Your task to perform on an android device: Set an alarm for 11am Image 0: 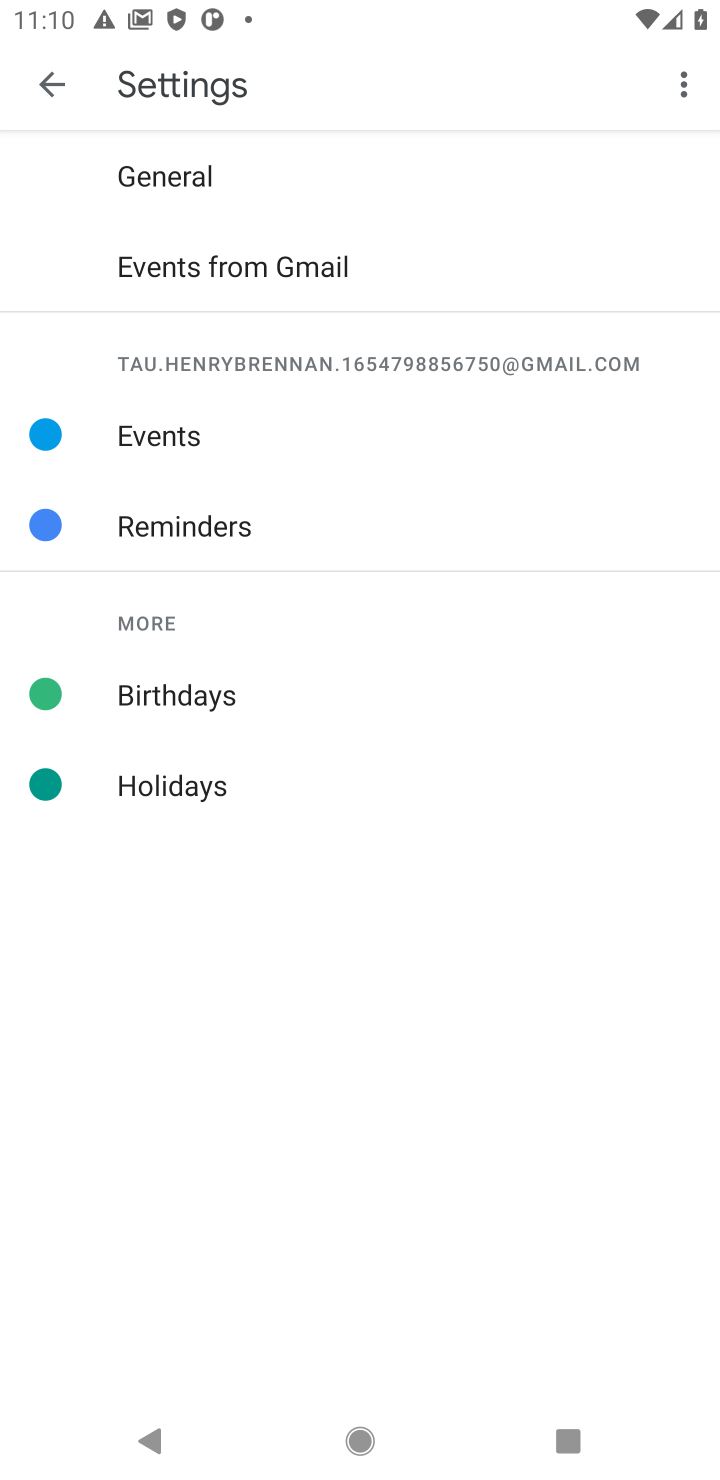
Step 0: press home button
Your task to perform on an android device: Set an alarm for 11am Image 1: 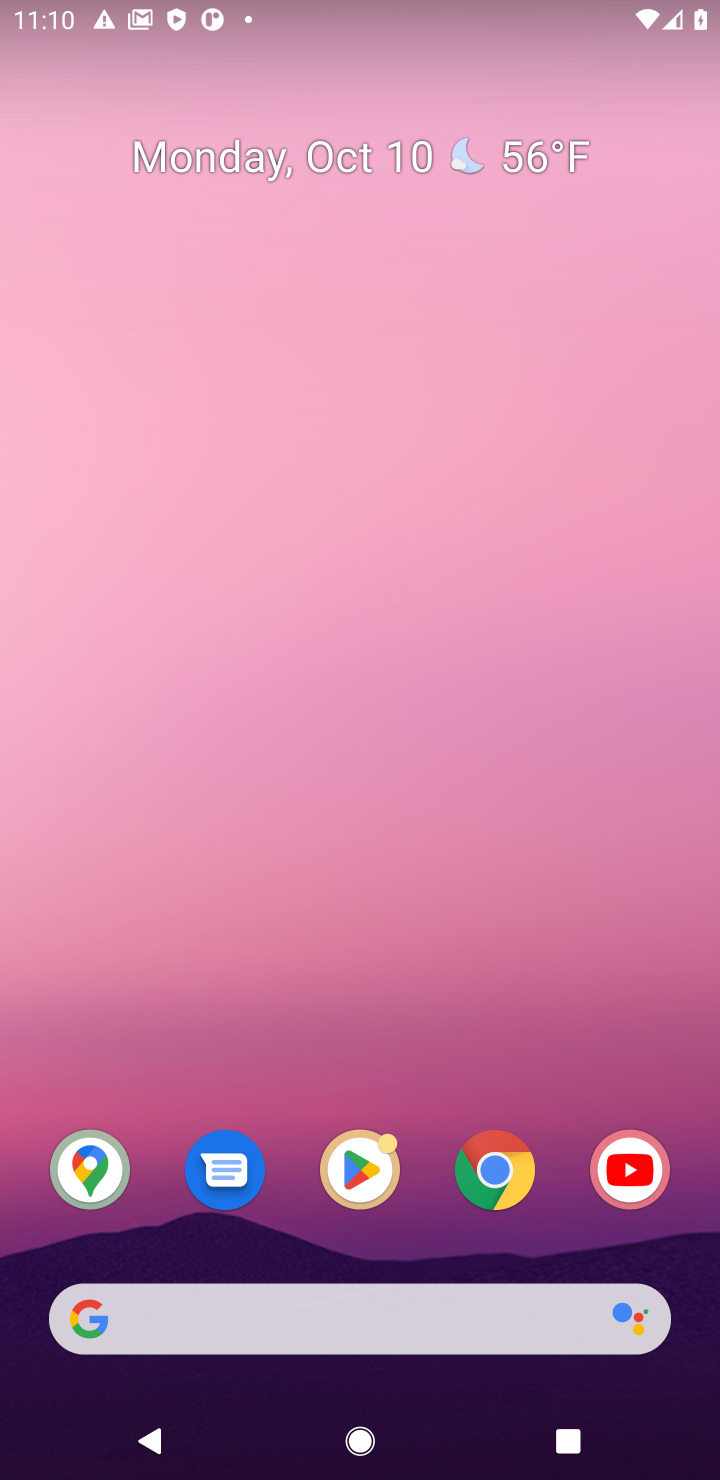
Step 1: drag from (399, 1228) to (407, 404)
Your task to perform on an android device: Set an alarm for 11am Image 2: 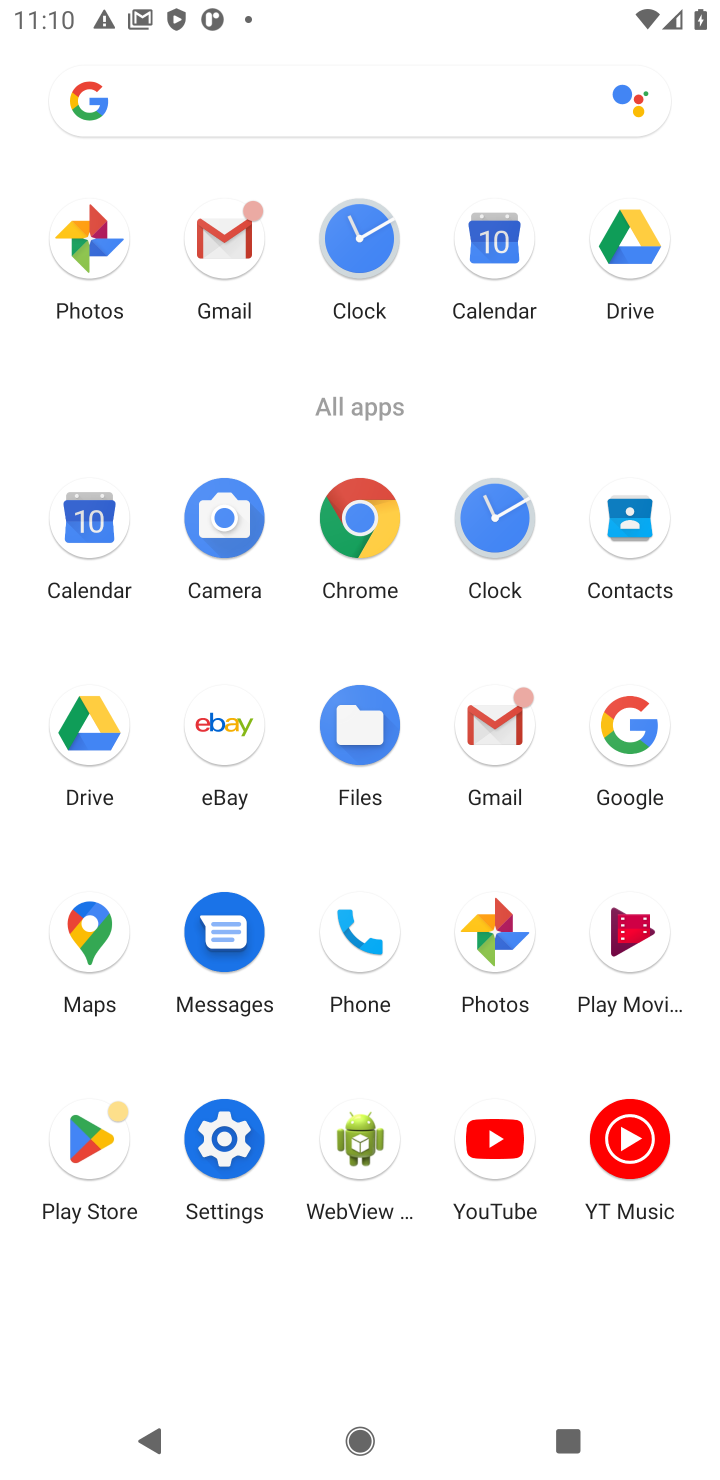
Step 2: click (495, 557)
Your task to perform on an android device: Set an alarm for 11am Image 3: 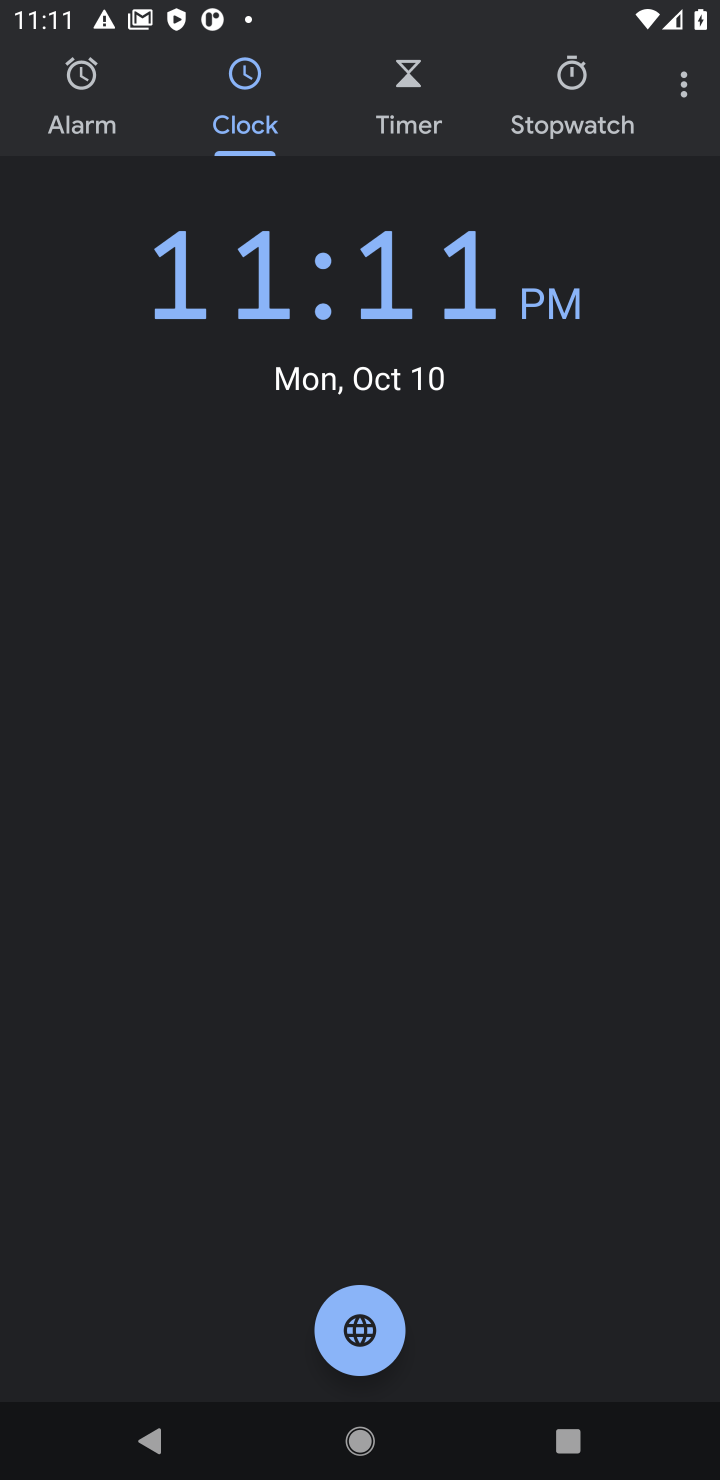
Step 3: click (108, 138)
Your task to perform on an android device: Set an alarm for 11am Image 4: 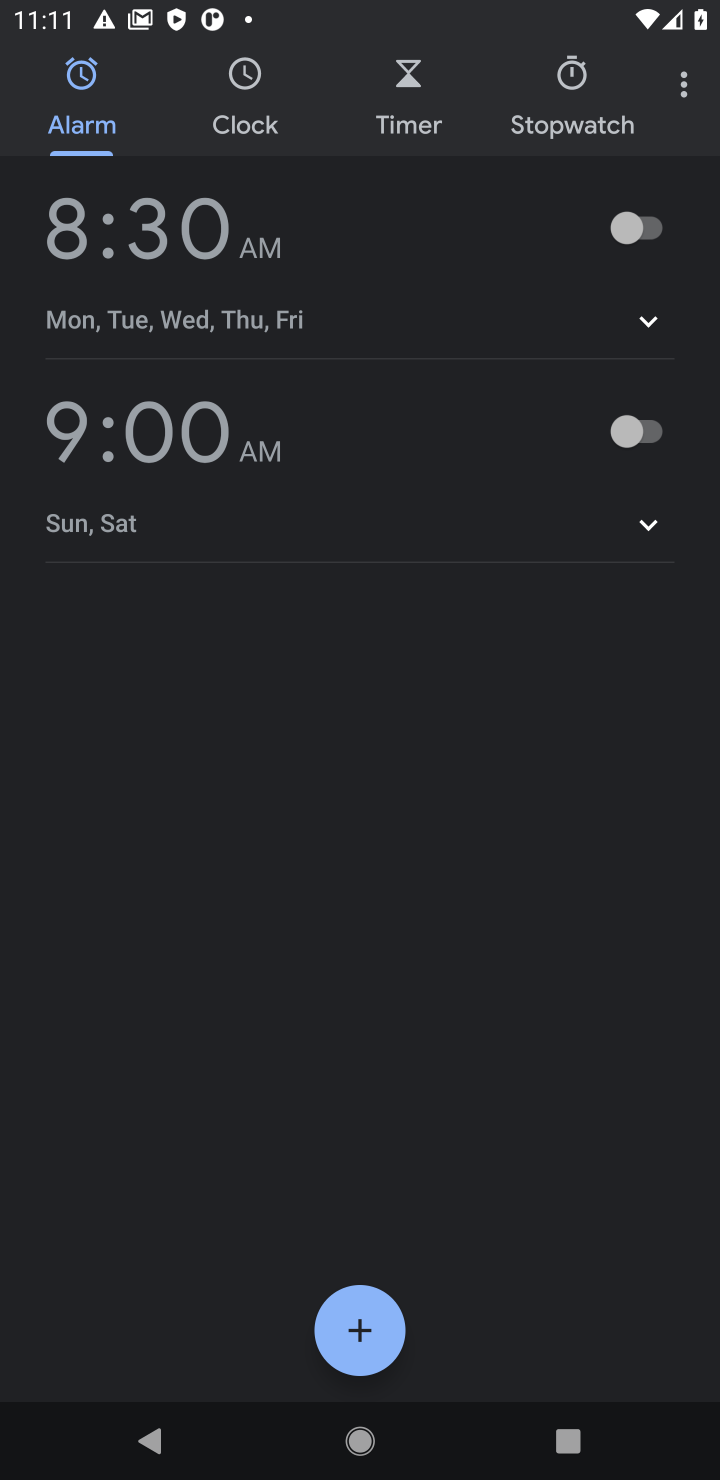
Step 4: click (370, 1338)
Your task to perform on an android device: Set an alarm for 11am Image 5: 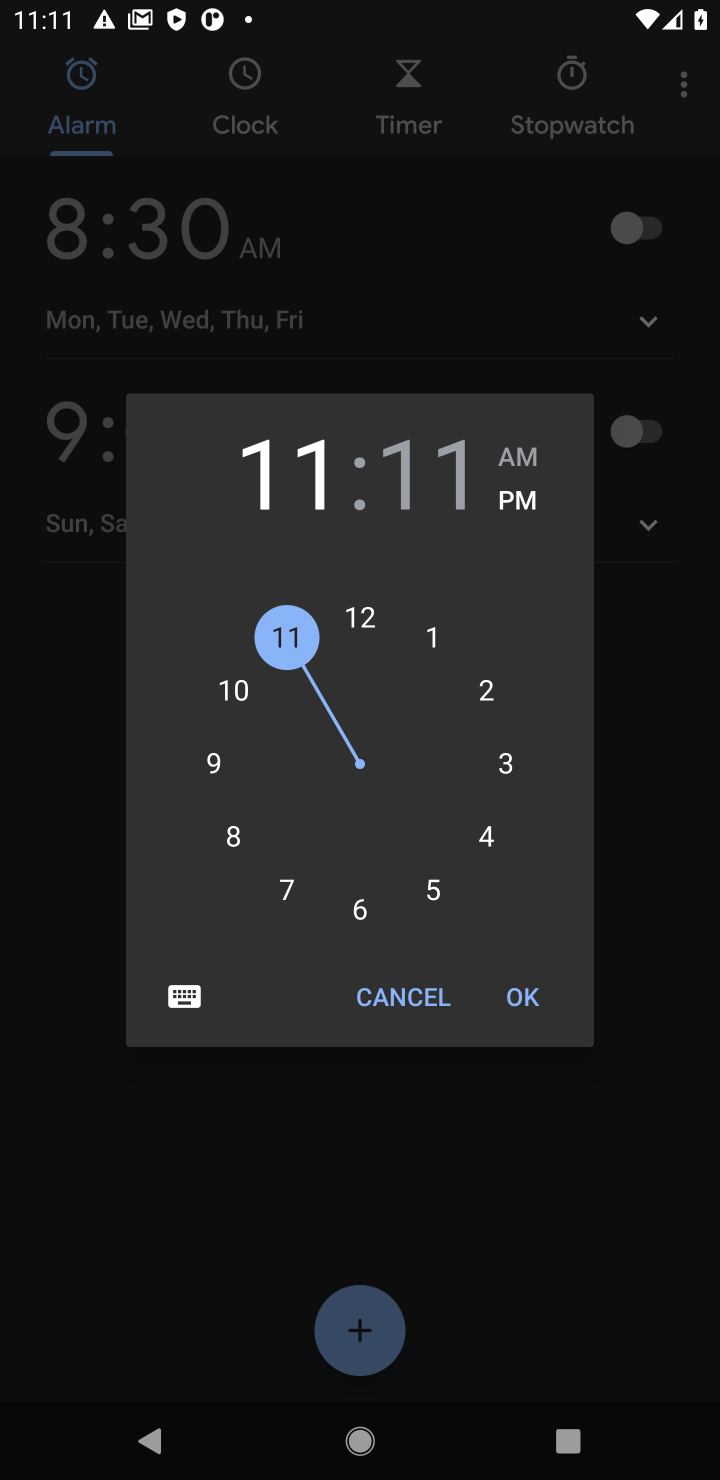
Step 5: click (293, 645)
Your task to perform on an android device: Set an alarm for 11am Image 6: 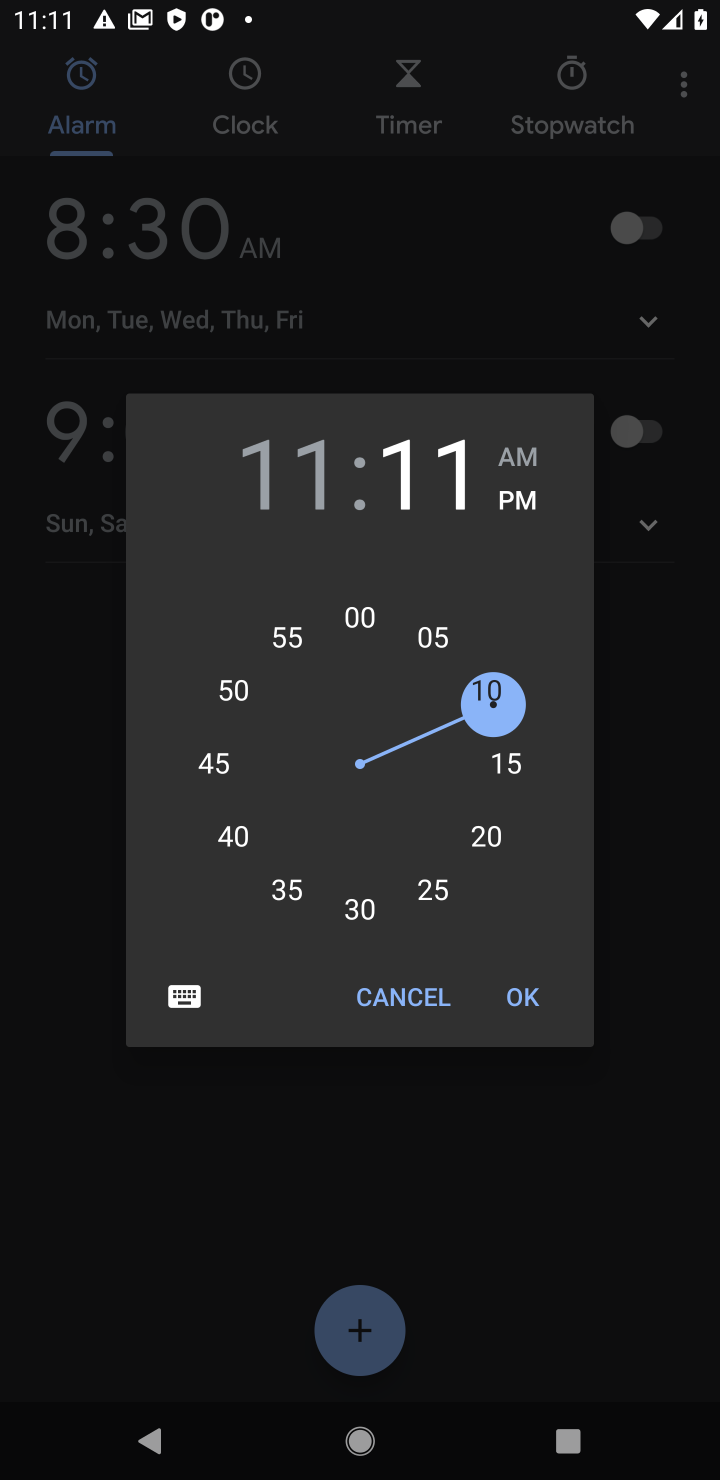
Step 6: click (348, 605)
Your task to perform on an android device: Set an alarm for 11am Image 7: 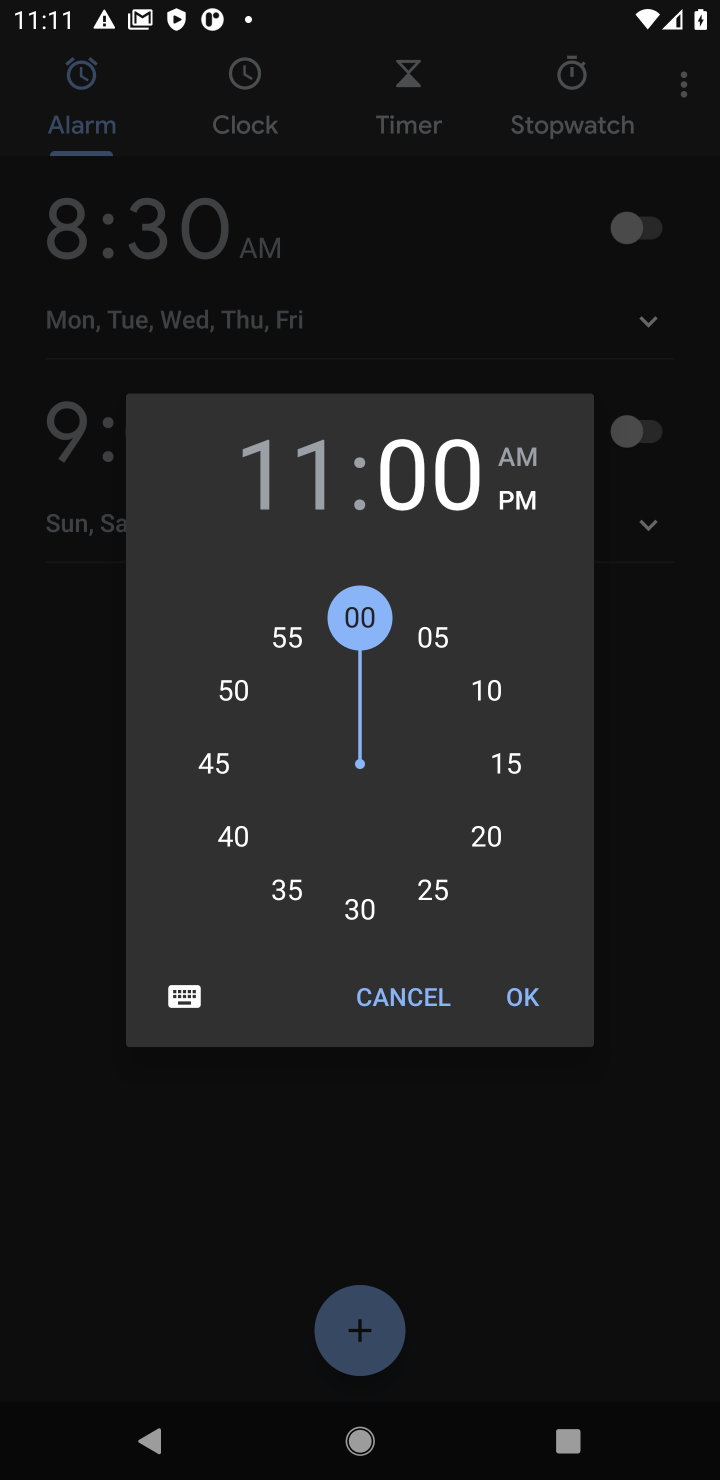
Step 7: click (527, 451)
Your task to perform on an android device: Set an alarm for 11am Image 8: 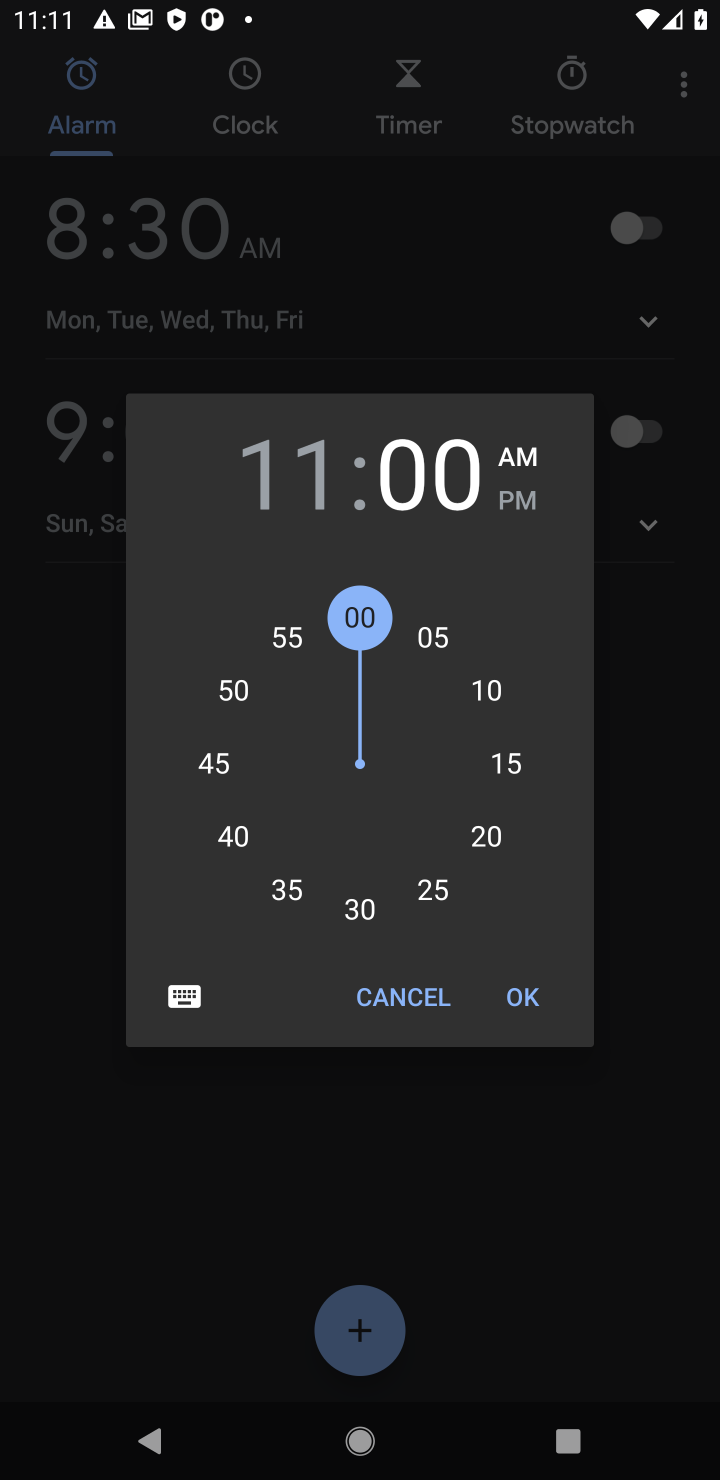
Step 8: click (524, 997)
Your task to perform on an android device: Set an alarm for 11am Image 9: 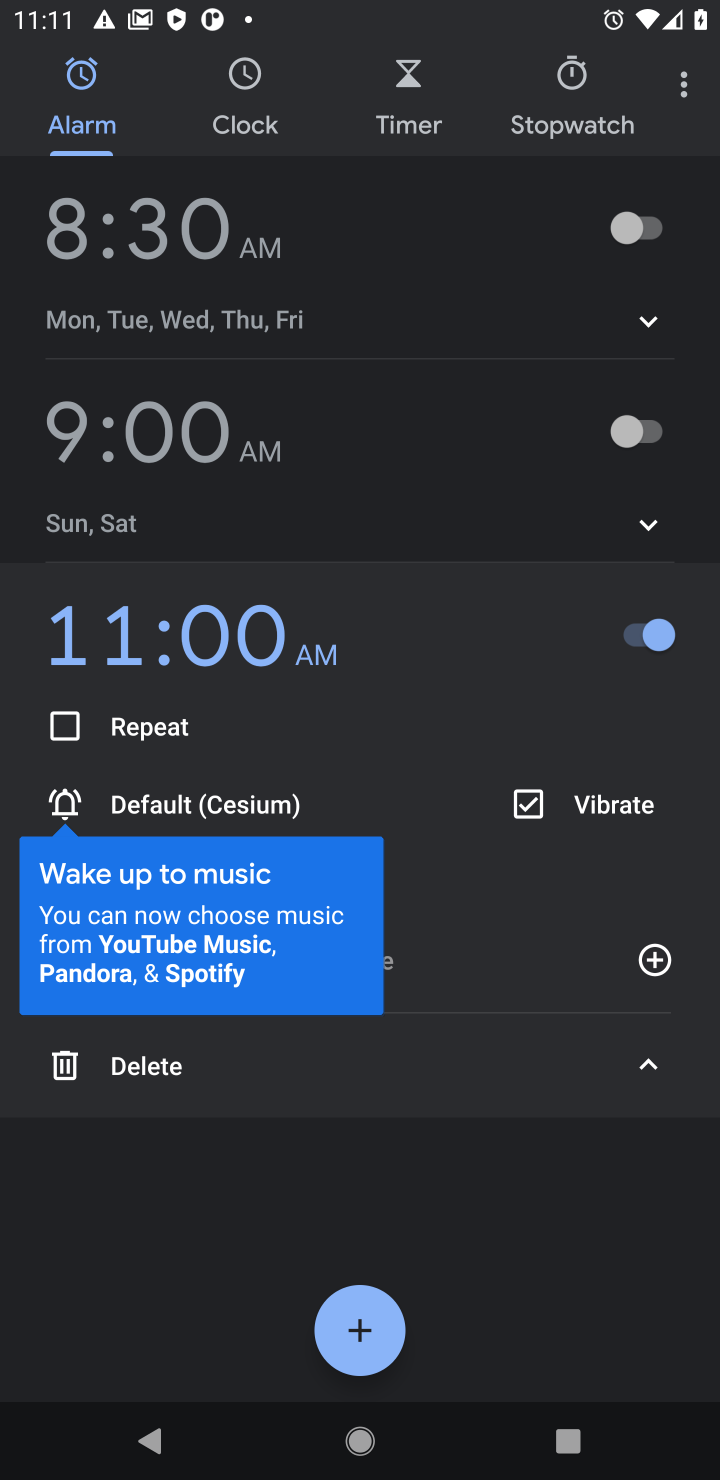
Step 9: task complete